Your task to perform on an android device: Open calendar and show me the first week of next month Image 0: 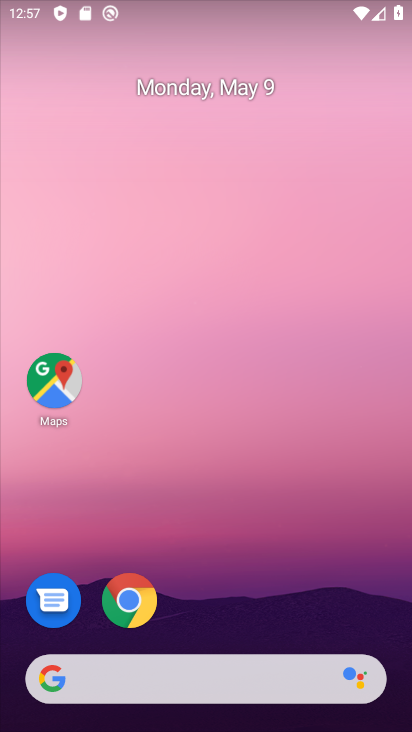
Step 0: click (360, 290)
Your task to perform on an android device: Open calendar and show me the first week of next month Image 1: 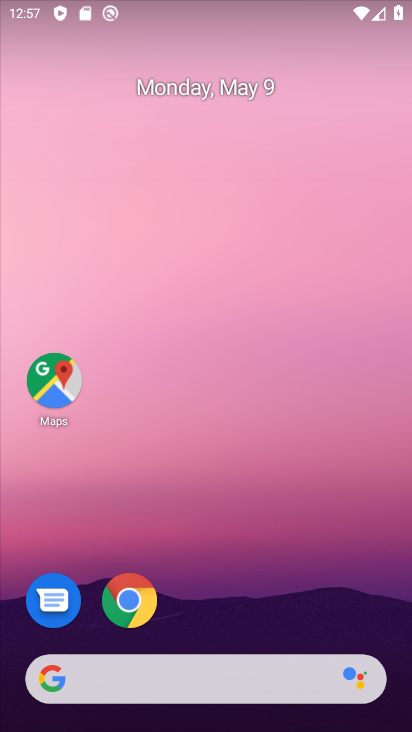
Step 1: click (206, 83)
Your task to perform on an android device: Open calendar and show me the first week of next month Image 2: 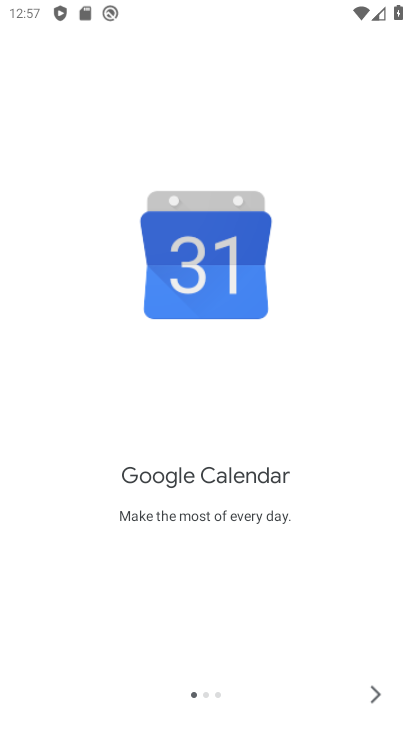
Step 2: click (370, 683)
Your task to perform on an android device: Open calendar and show me the first week of next month Image 3: 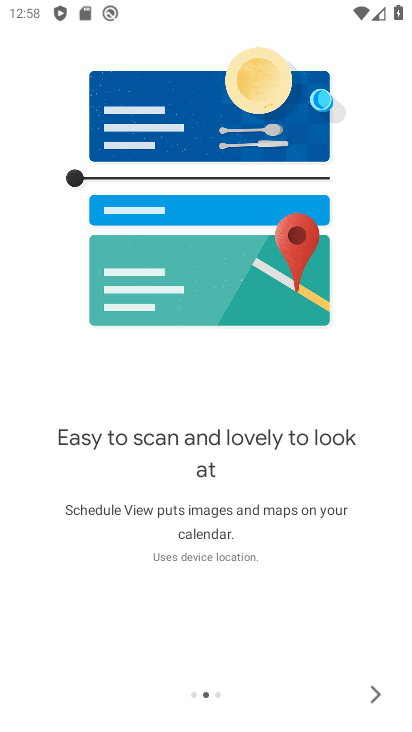
Step 3: click (370, 687)
Your task to perform on an android device: Open calendar and show me the first week of next month Image 4: 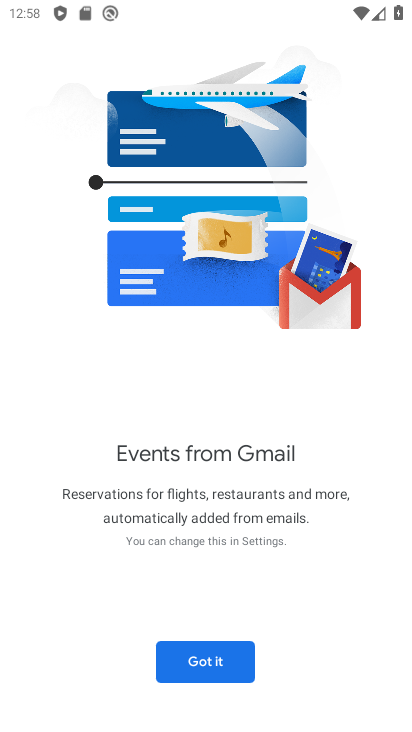
Step 4: click (198, 661)
Your task to perform on an android device: Open calendar and show me the first week of next month Image 5: 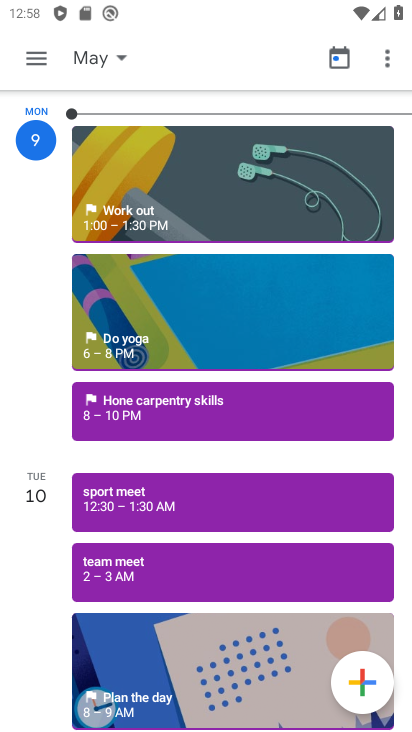
Step 5: click (78, 71)
Your task to perform on an android device: Open calendar and show me the first week of next month Image 6: 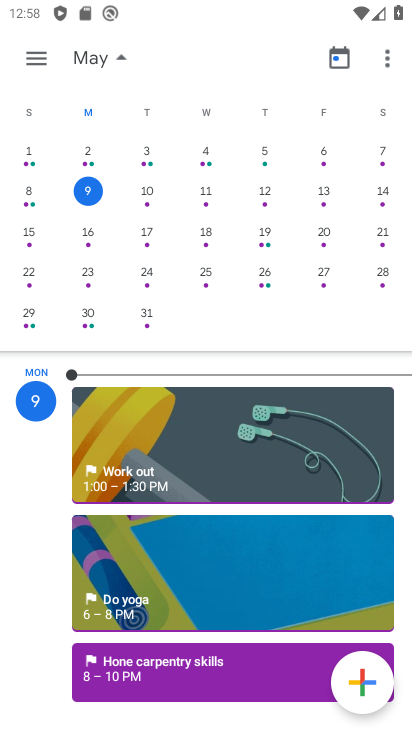
Step 6: task complete